Your task to perform on an android device: Go to wifi settings Image 0: 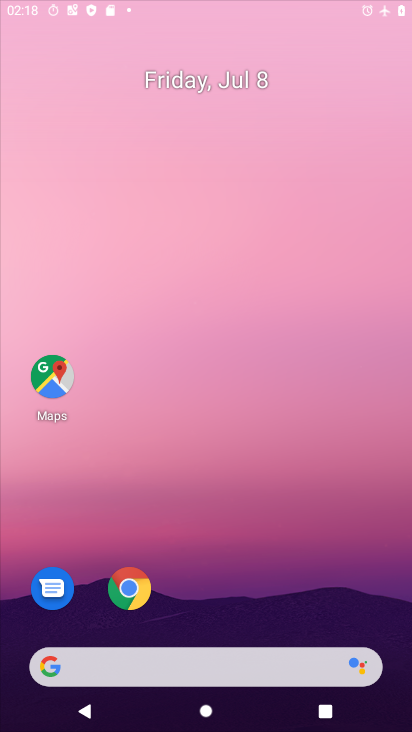
Step 0: click (85, 67)
Your task to perform on an android device: Go to wifi settings Image 1: 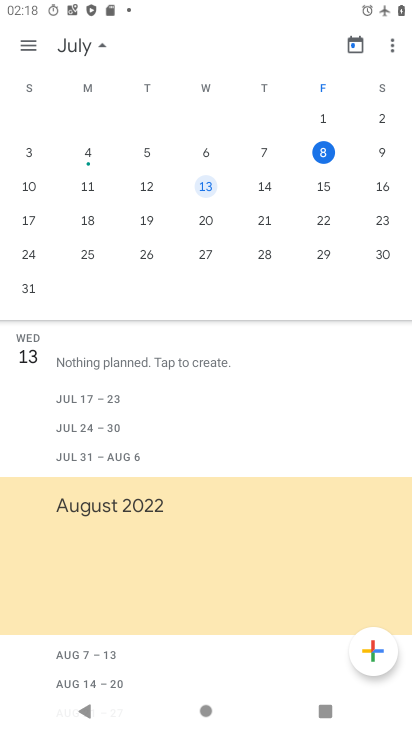
Step 1: press home button
Your task to perform on an android device: Go to wifi settings Image 2: 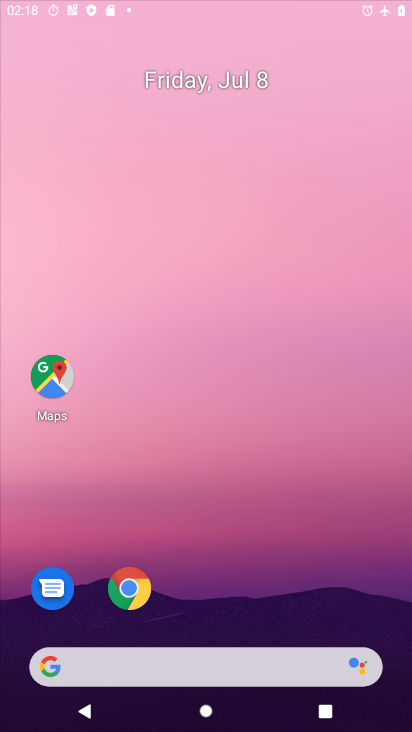
Step 2: drag from (211, 608) to (240, 320)
Your task to perform on an android device: Go to wifi settings Image 3: 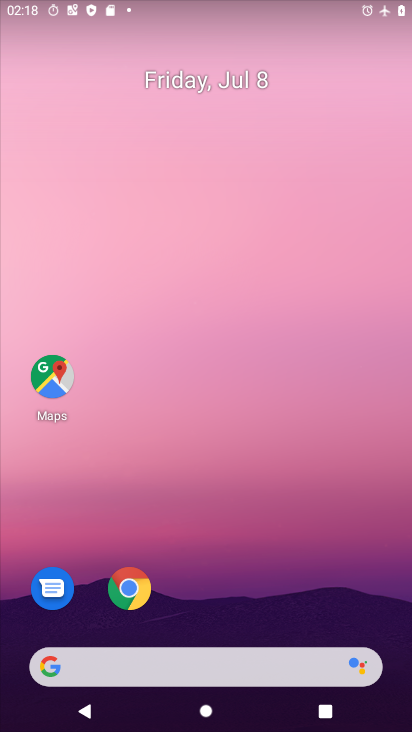
Step 3: drag from (212, 615) to (305, 81)
Your task to perform on an android device: Go to wifi settings Image 4: 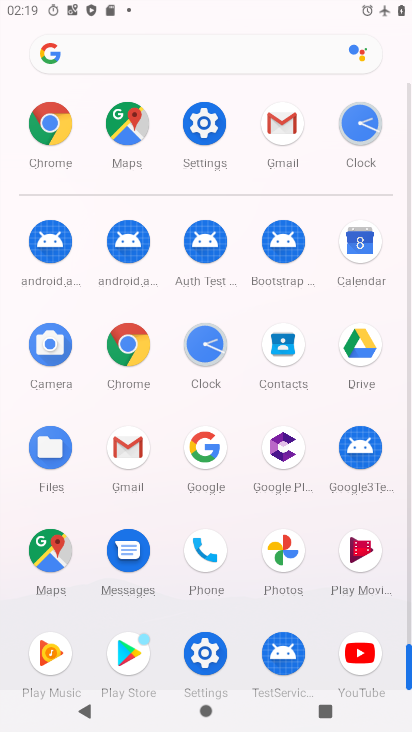
Step 4: click (205, 130)
Your task to perform on an android device: Go to wifi settings Image 5: 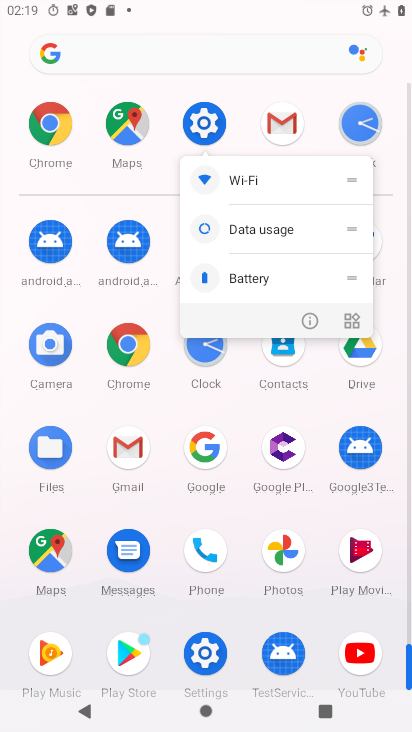
Step 5: click (238, 193)
Your task to perform on an android device: Go to wifi settings Image 6: 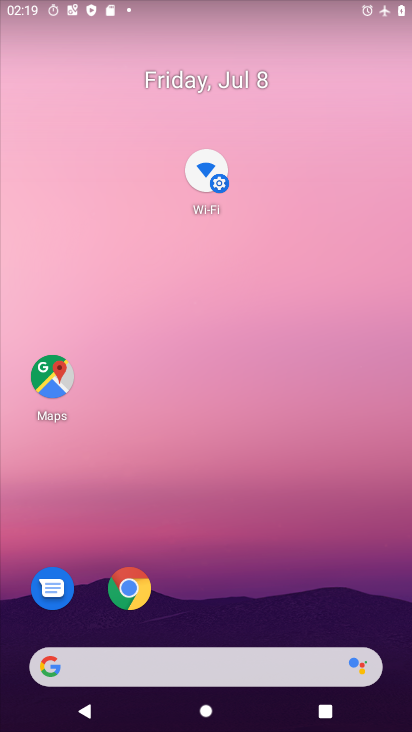
Step 6: drag from (210, 531) to (283, 7)
Your task to perform on an android device: Go to wifi settings Image 7: 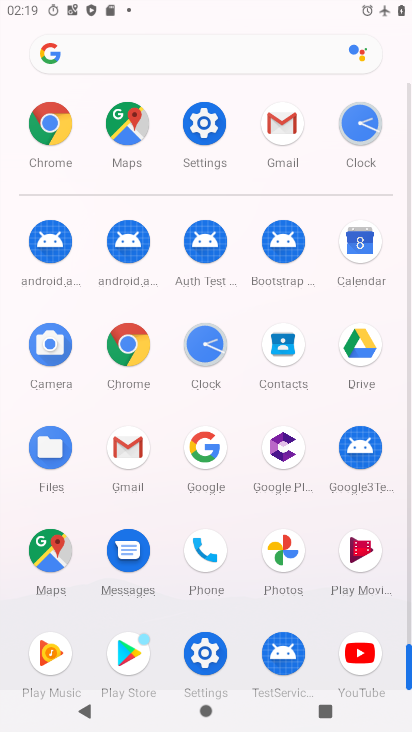
Step 7: click (213, 121)
Your task to perform on an android device: Go to wifi settings Image 8: 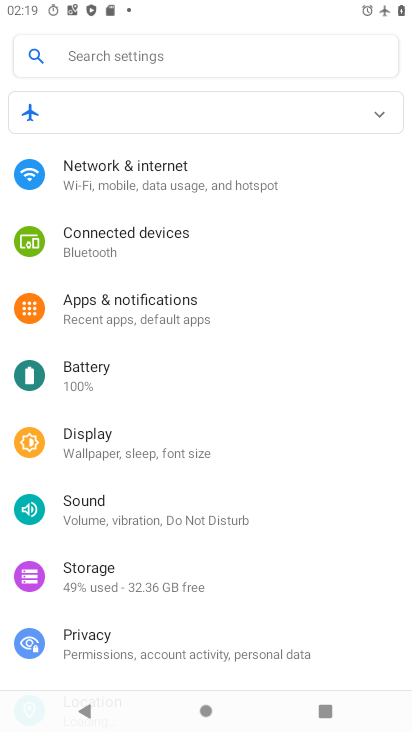
Step 8: click (102, 184)
Your task to perform on an android device: Go to wifi settings Image 9: 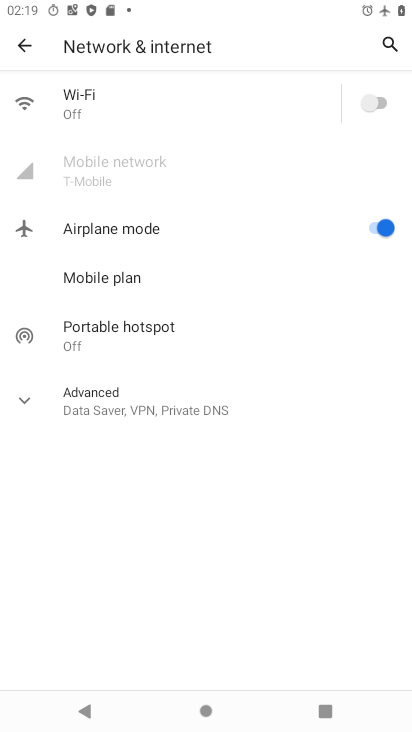
Step 9: click (114, 100)
Your task to perform on an android device: Go to wifi settings Image 10: 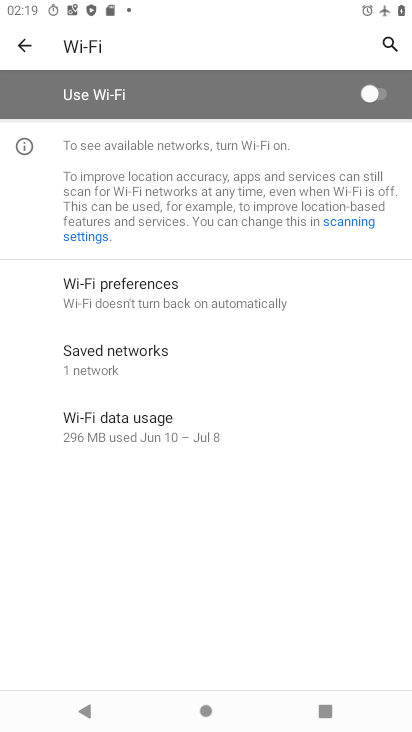
Step 10: task complete